Your task to perform on an android device: What's on my calendar today? Image 0: 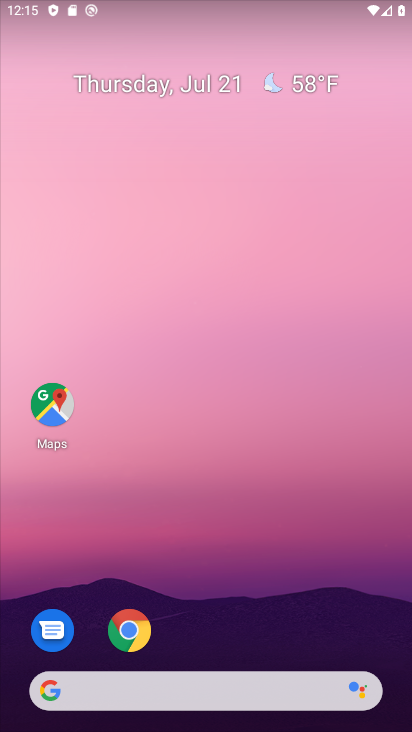
Step 0: drag from (232, 674) to (150, 85)
Your task to perform on an android device: What's on my calendar today? Image 1: 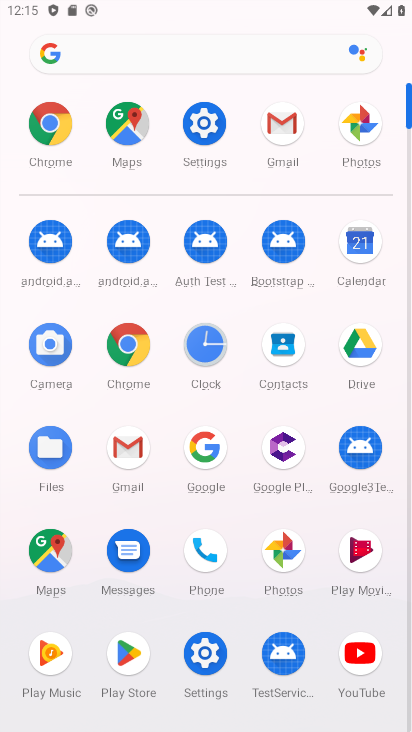
Step 1: click (360, 226)
Your task to perform on an android device: What's on my calendar today? Image 2: 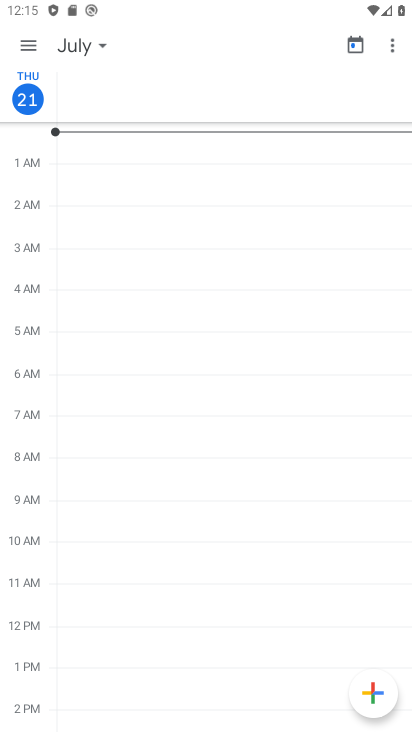
Step 2: task complete